Your task to perform on an android device: See recent photos Image 0: 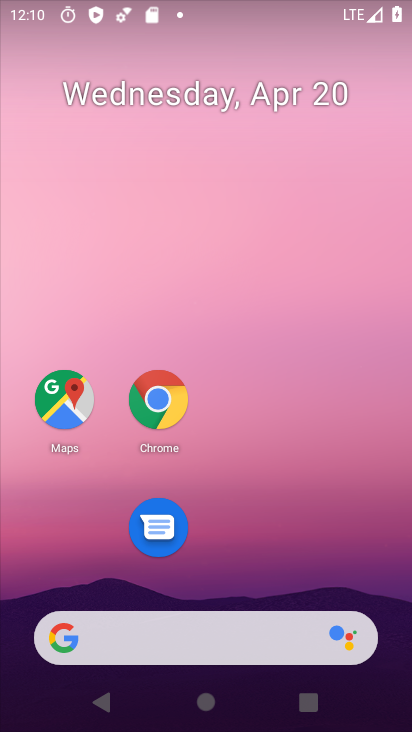
Step 0: drag from (287, 669) to (324, 169)
Your task to perform on an android device: See recent photos Image 1: 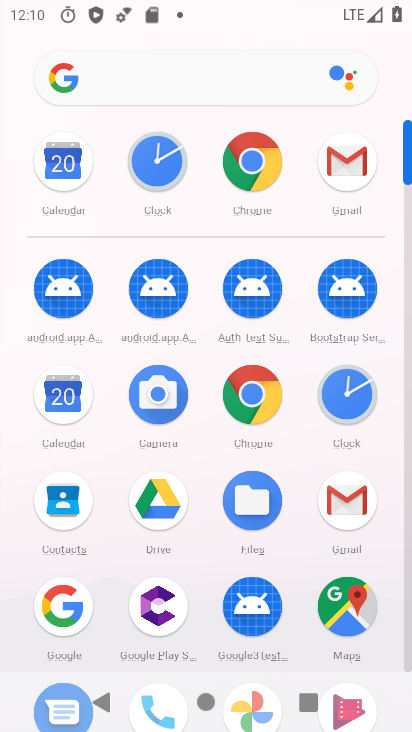
Step 1: drag from (206, 560) to (213, 457)
Your task to perform on an android device: See recent photos Image 2: 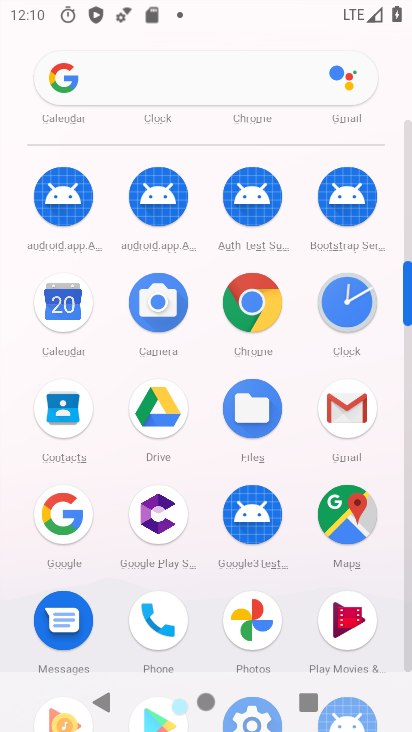
Step 2: click (267, 613)
Your task to perform on an android device: See recent photos Image 3: 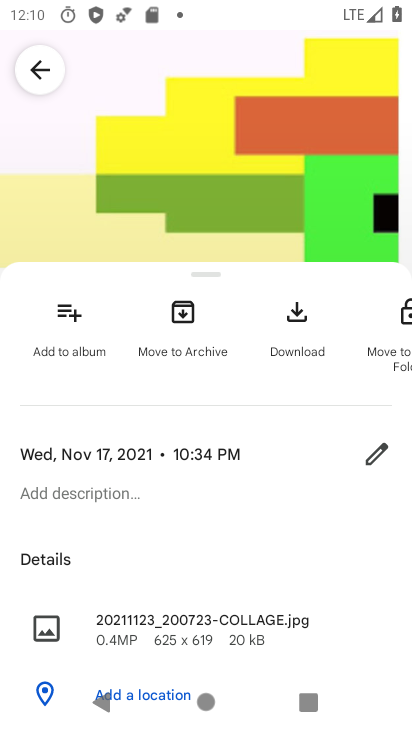
Step 3: click (53, 78)
Your task to perform on an android device: See recent photos Image 4: 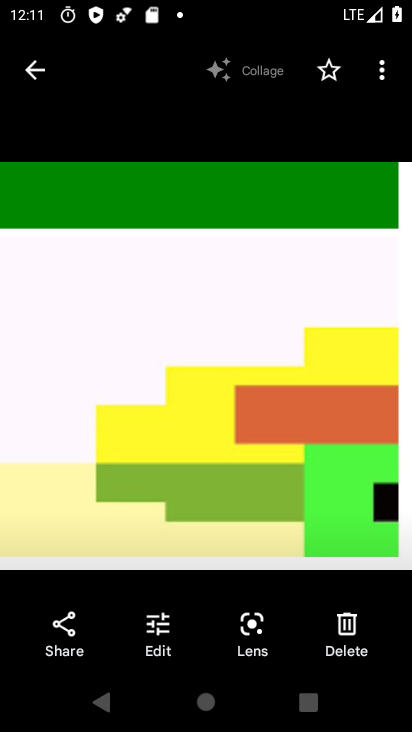
Step 4: click (43, 67)
Your task to perform on an android device: See recent photos Image 5: 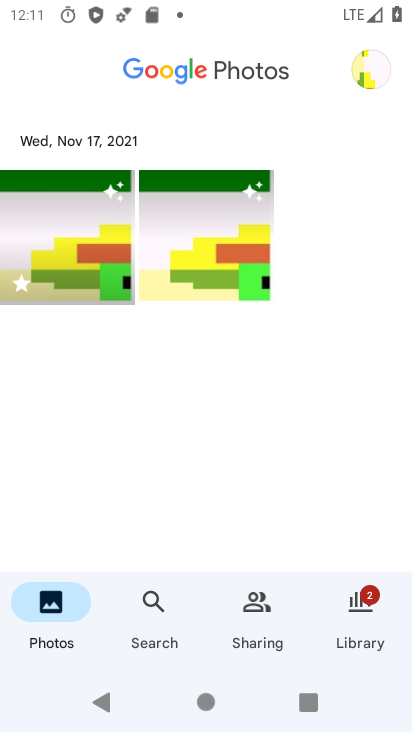
Step 5: task complete